Your task to perform on an android device: Open display settings Image 0: 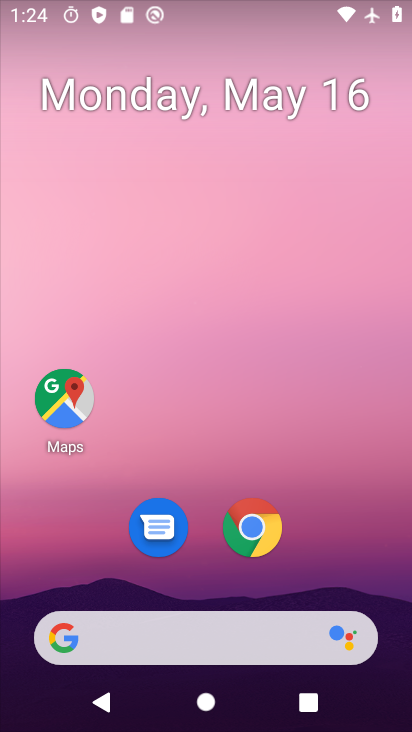
Step 0: press home button
Your task to perform on an android device: Open display settings Image 1: 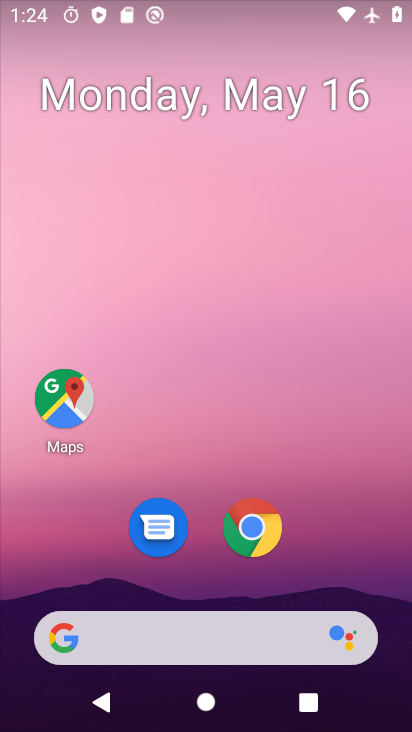
Step 1: click (255, 535)
Your task to perform on an android device: Open display settings Image 2: 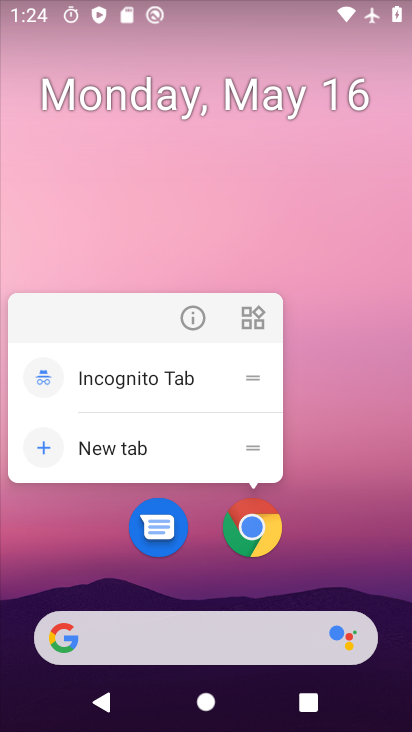
Step 2: press home button
Your task to perform on an android device: Open display settings Image 3: 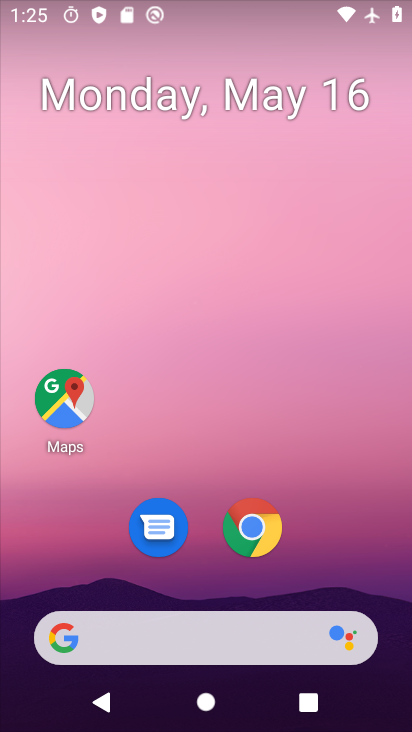
Step 3: drag from (160, 624) to (264, 253)
Your task to perform on an android device: Open display settings Image 4: 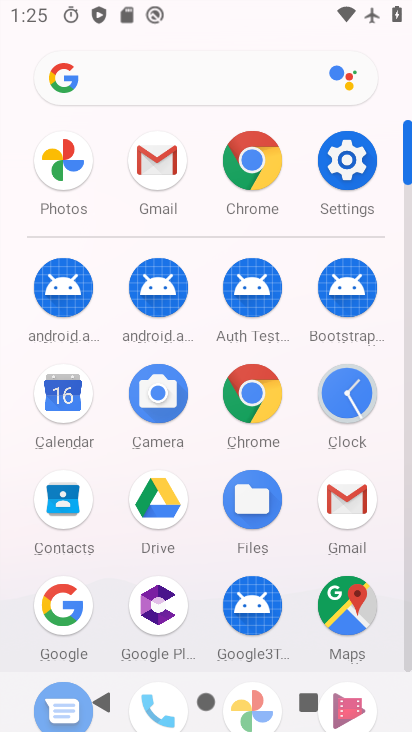
Step 4: click (352, 164)
Your task to perform on an android device: Open display settings Image 5: 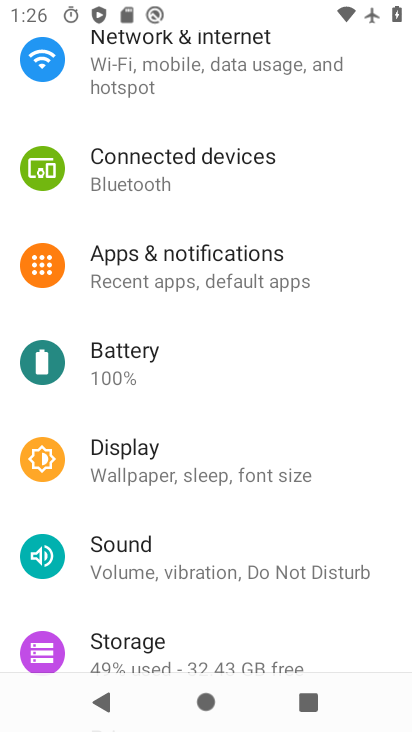
Step 5: click (181, 472)
Your task to perform on an android device: Open display settings Image 6: 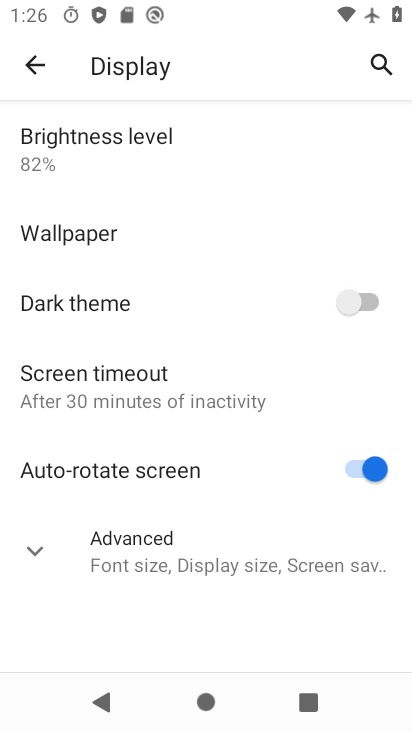
Step 6: task complete